Your task to perform on an android device: choose inbox layout in the gmail app Image 0: 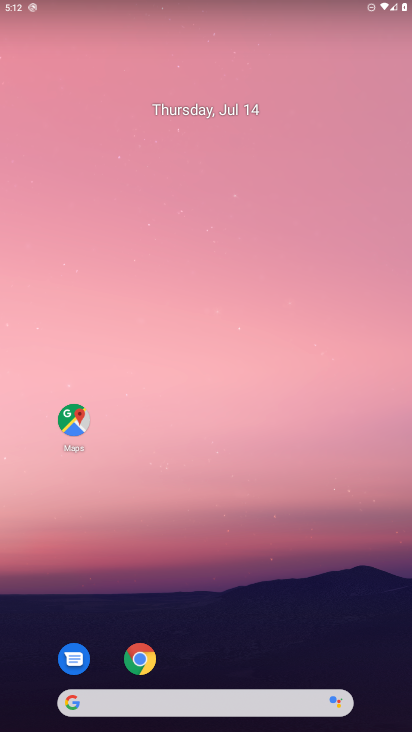
Step 0: drag from (230, 671) to (279, 4)
Your task to perform on an android device: choose inbox layout in the gmail app Image 1: 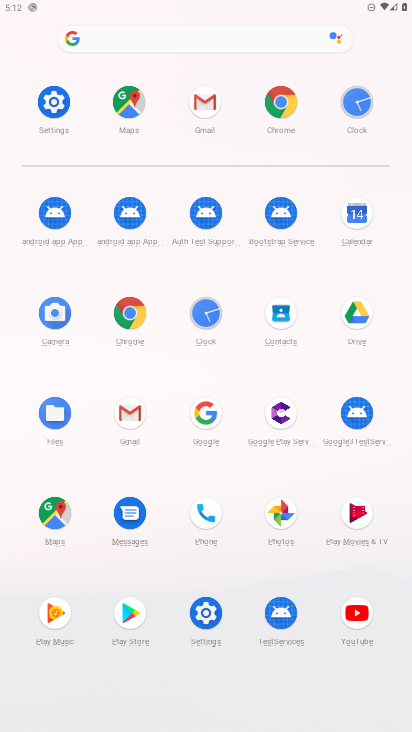
Step 1: click (203, 95)
Your task to perform on an android device: choose inbox layout in the gmail app Image 2: 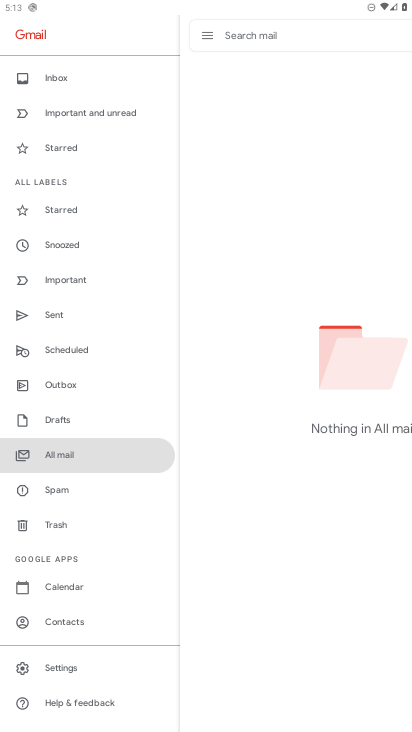
Step 2: click (85, 655)
Your task to perform on an android device: choose inbox layout in the gmail app Image 3: 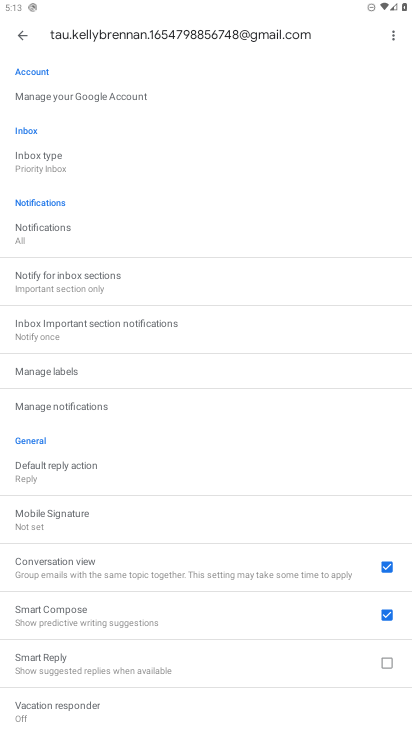
Step 3: click (54, 152)
Your task to perform on an android device: choose inbox layout in the gmail app Image 4: 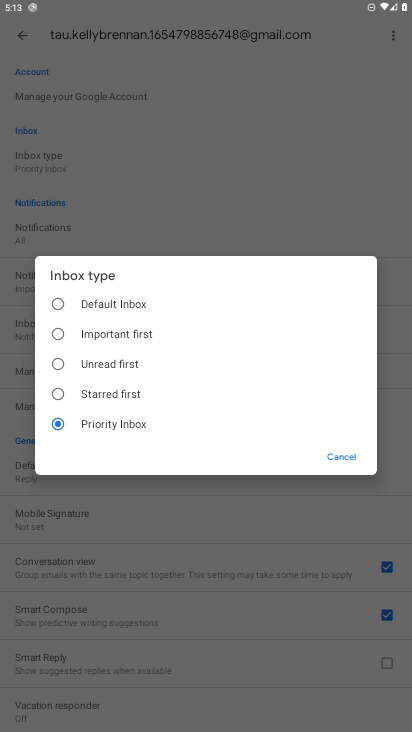
Step 4: click (54, 302)
Your task to perform on an android device: choose inbox layout in the gmail app Image 5: 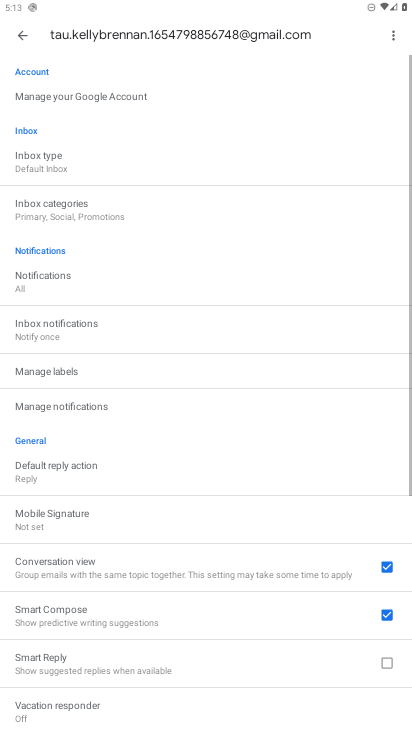
Step 5: task complete